Your task to perform on an android device: toggle show notifications on the lock screen Image 0: 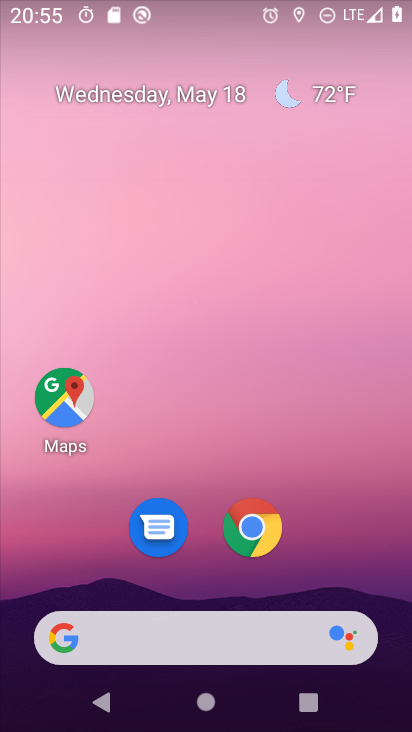
Step 0: drag from (393, 557) to (396, 278)
Your task to perform on an android device: toggle show notifications on the lock screen Image 1: 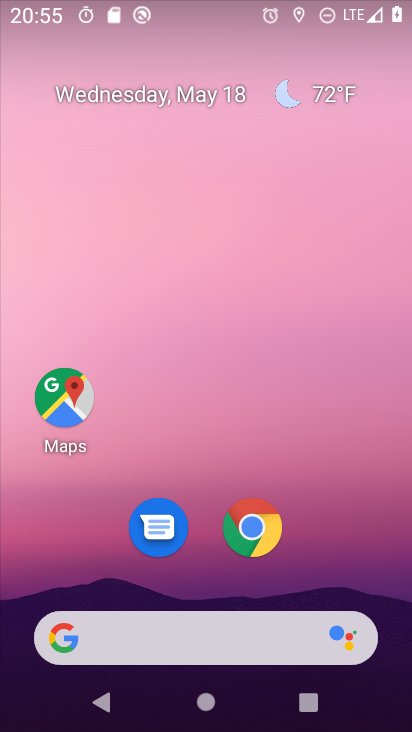
Step 1: drag from (392, 674) to (356, 80)
Your task to perform on an android device: toggle show notifications on the lock screen Image 2: 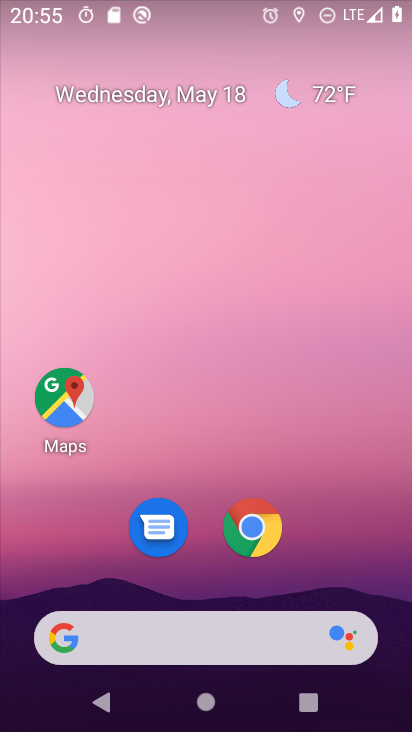
Step 2: drag from (389, 706) to (365, 209)
Your task to perform on an android device: toggle show notifications on the lock screen Image 3: 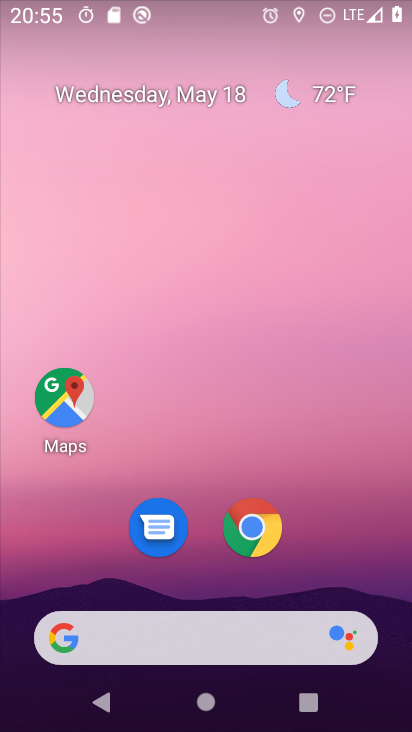
Step 3: drag from (395, 705) to (400, 295)
Your task to perform on an android device: toggle show notifications on the lock screen Image 4: 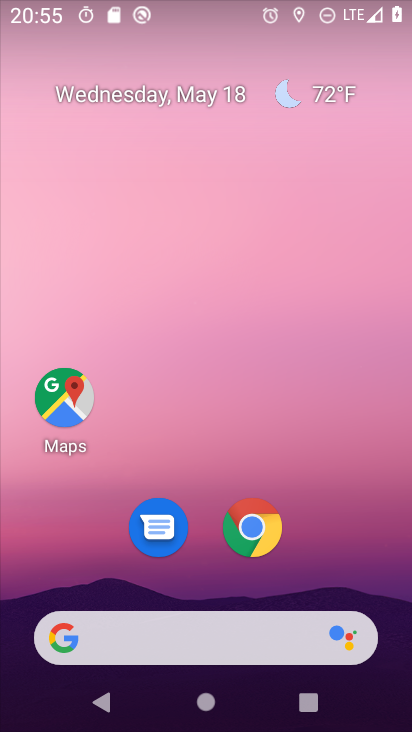
Step 4: drag from (399, 692) to (406, 263)
Your task to perform on an android device: toggle show notifications on the lock screen Image 5: 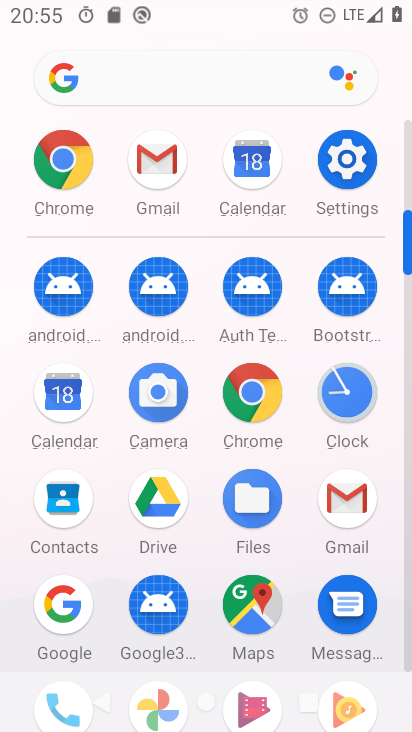
Step 5: click (365, 156)
Your task to perform on an android device: toggle show notifications on the lock screen Image 6: 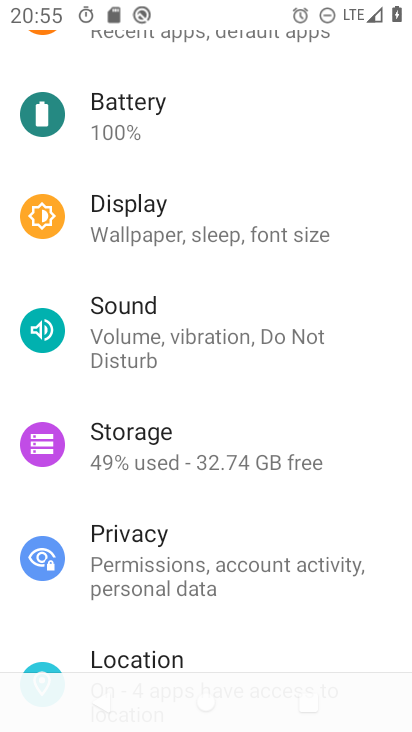
Step 6: drag from (312, 164) to (353, 546)
Your task to perform on an android device: toggle show notifications on the lock screen Image 7: 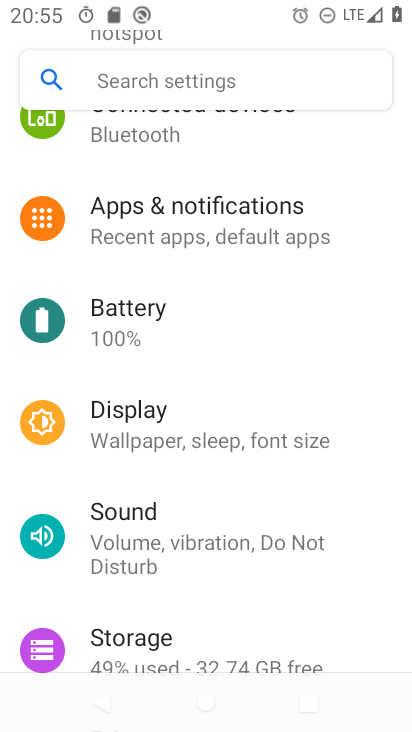
Step 7: click (227, 217)
Your task to perform on an android device: toggle show notifications on the lock screen Image 8: 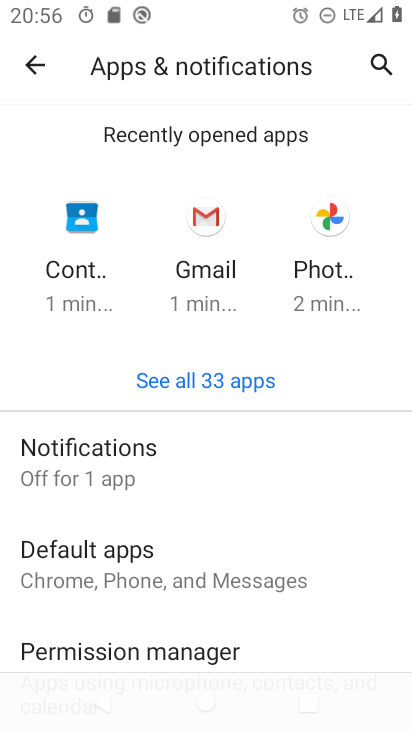
Step 8: click (99, 471)
Your task to perform on an android device: toggle show notifications on the lock screen Image 9: 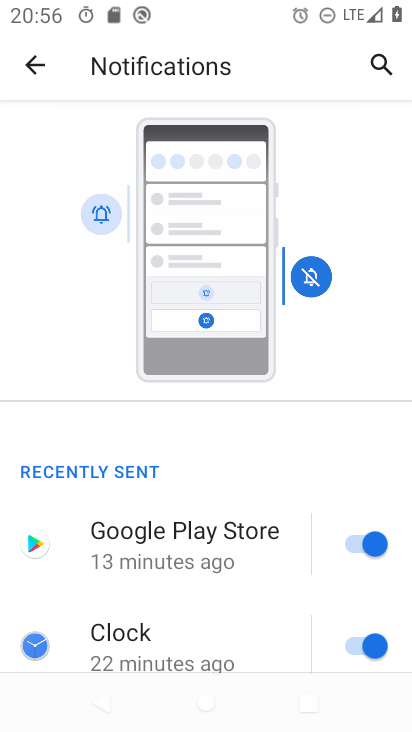
Step 9: drag from (269, 659) to (282, 335)
Your task to perform on an android device: toggle show notifications on the lock screen Image 10: 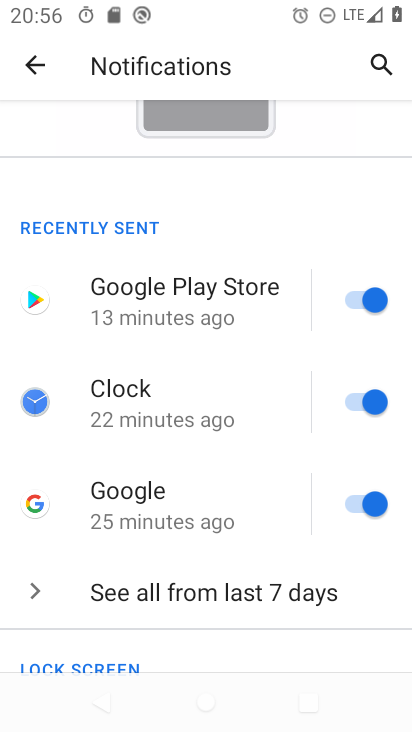
Step 10: drag from (236, 571) to (222, 296)
Your task to perform on an android device: toggle show notifications on the lock screen Image 11: 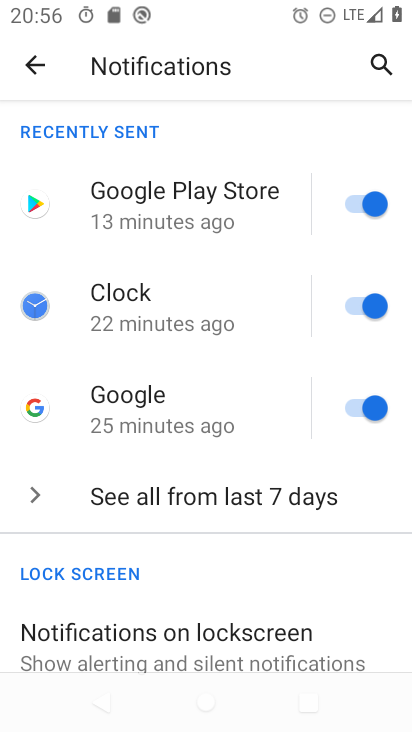
Step 11: click (130, 636)
Your task to perform on an android device: toggle show notifications on the lock screen Image 12: 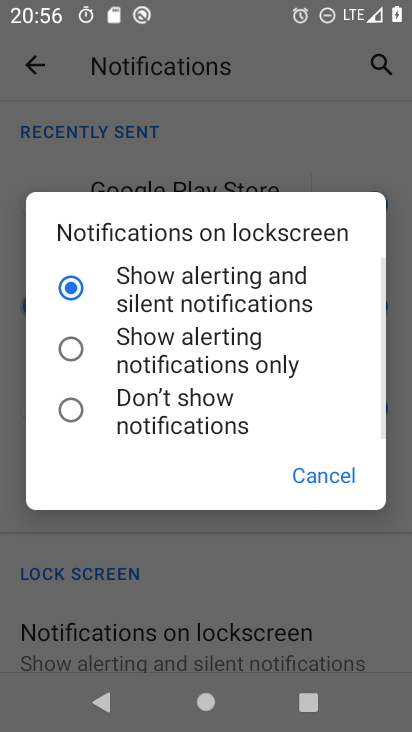
Step 12: click (64, 349)
Your task to perform on an android device: toggle show notifications on the lock screen Image 13: 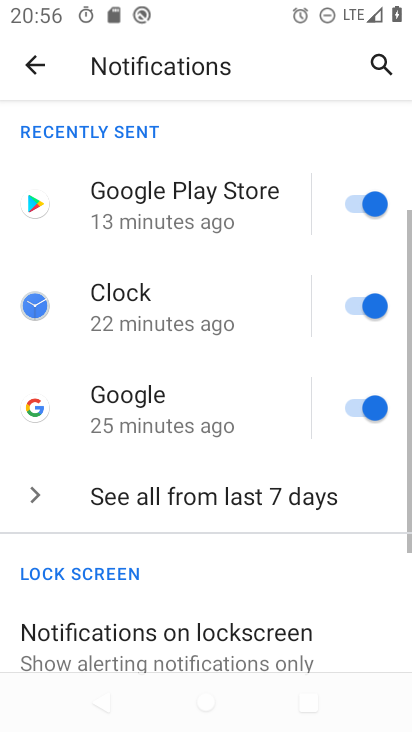
Step 13: task complete